Your task to perform on an android device: Go to location settings Image 0: 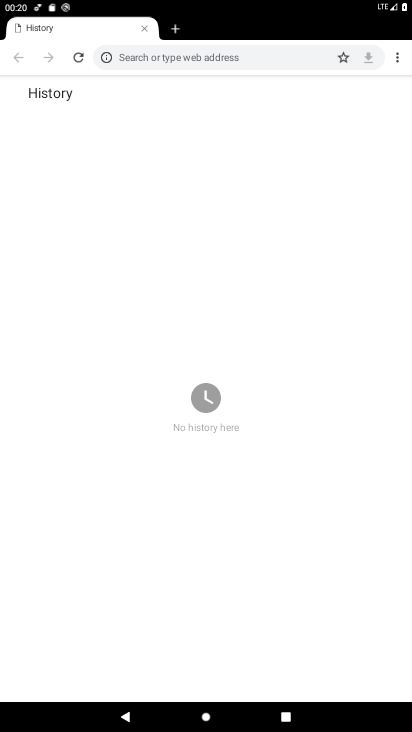
Step 0: press home button
Your task to perform on an android device: Go to location settings Image 1: 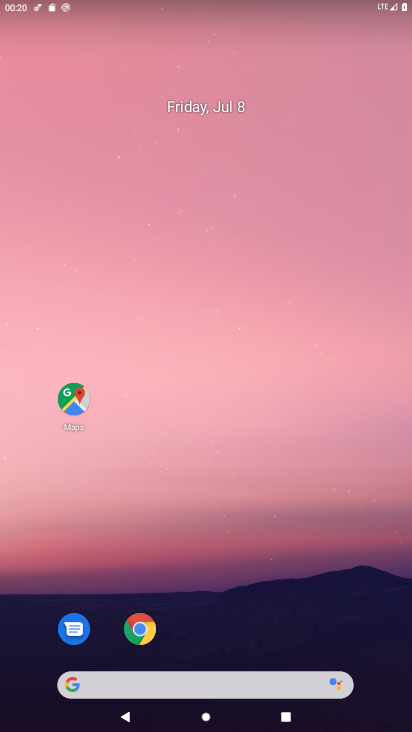
Step 1: drag from (259, 624) to (215, 139)
Your task to perform on an android device: Go to location settings Image 2: 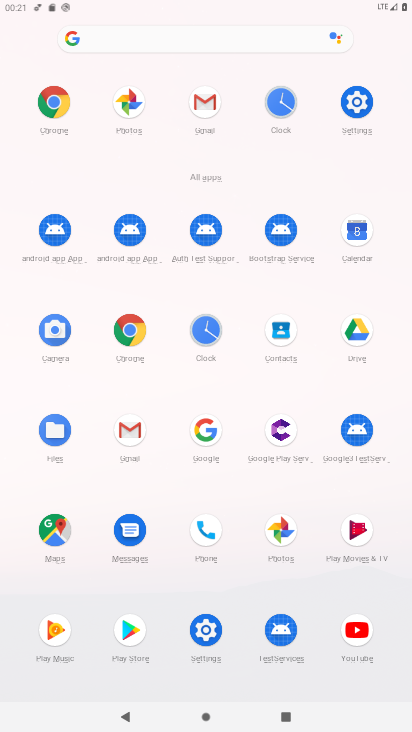
Step 2: click (204, 638)
Your task to perform on an android device: Go to location settings Image 3: 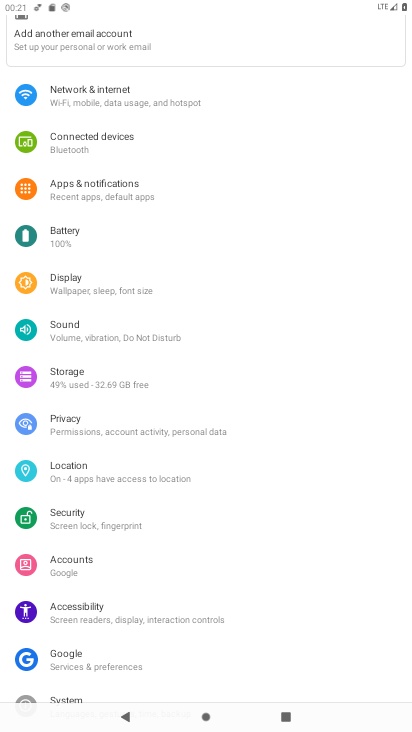
Step 3: click (122, 476)
Your task to perform on an android device: Go to location settings Image 4: 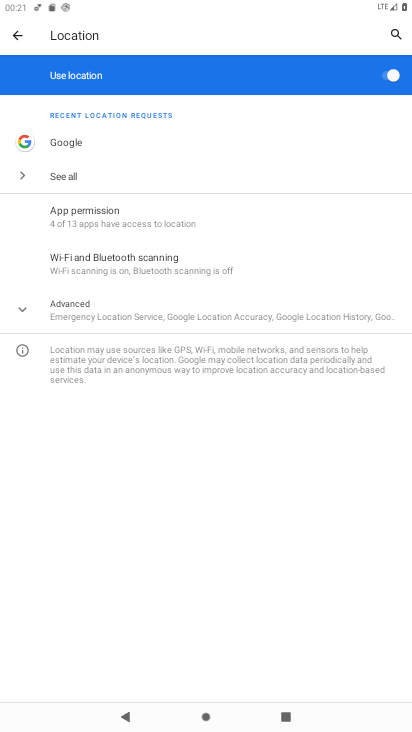
Step 4: task complete